Your task to perform on an android device: turn off wifi Image 0: 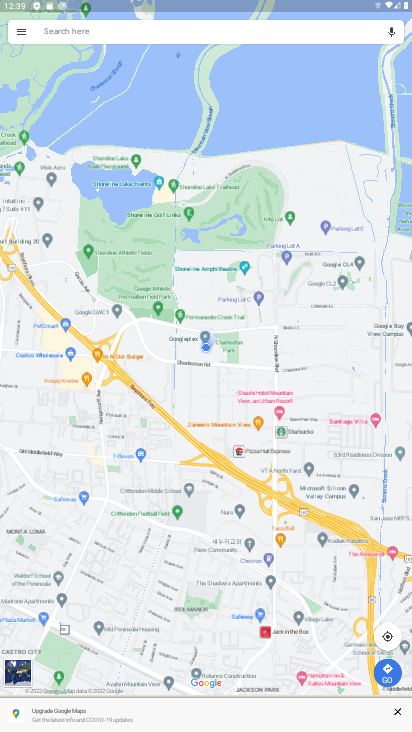
Step 0: press home button
Your task to perform on an android device: turn off wifi Image 1: 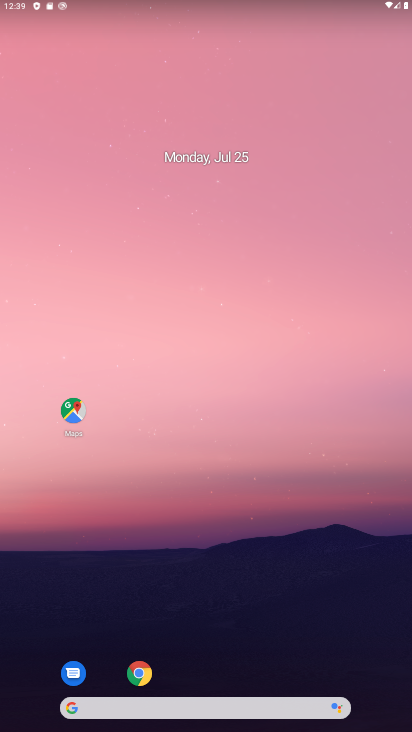
Step 1: drag from (154, 731) to (214, 55)
Your task to perform on an android device: turn off wifi Image 2: 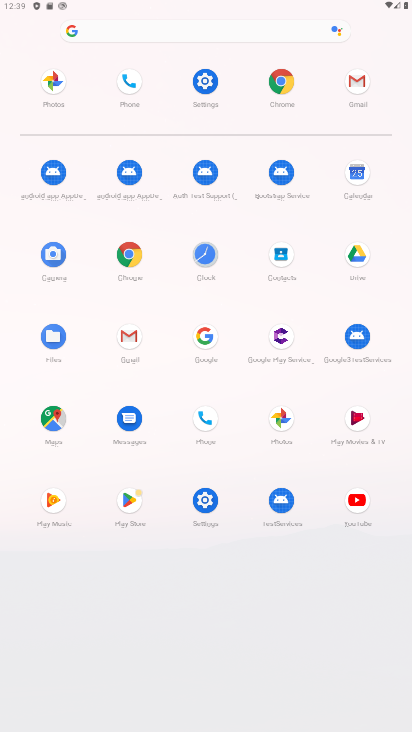
Step 2: click (198, 85)
Your task to perform on an android device: turn off wifi Image 3: 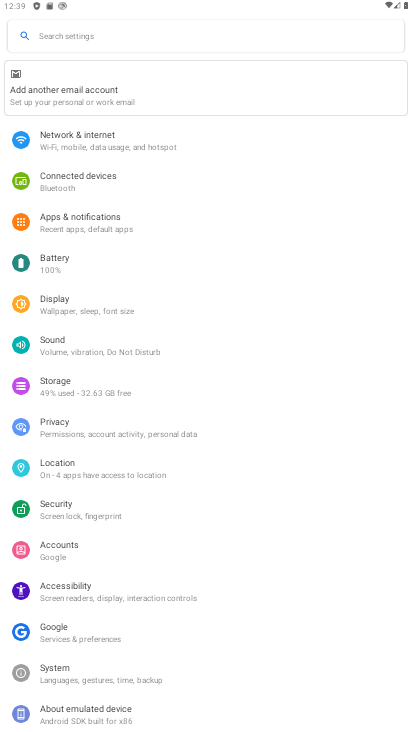
Step 3: click (176, 143)
Your task to perform on an android device: turn off wifi Image 4: 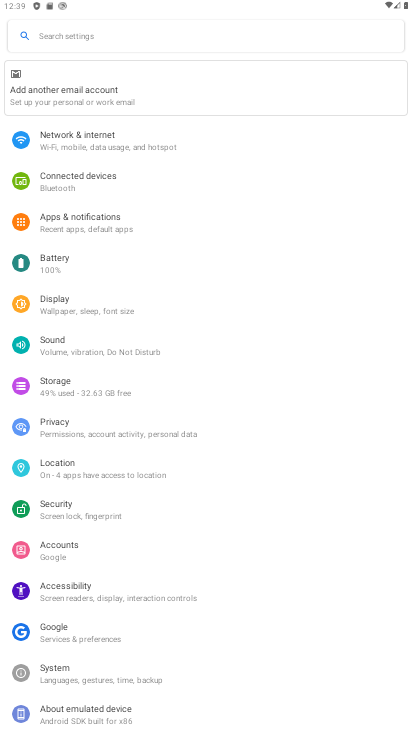
Step 4: click (176, 143)
Your task to perform on an android device: turn off wifi Image 5: 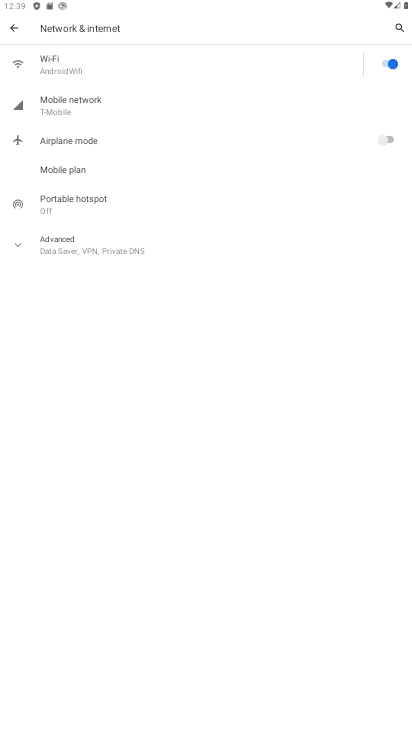
Step 5: click (390, 63)
Your task to perform on an android device: turn off wifi Image 6: 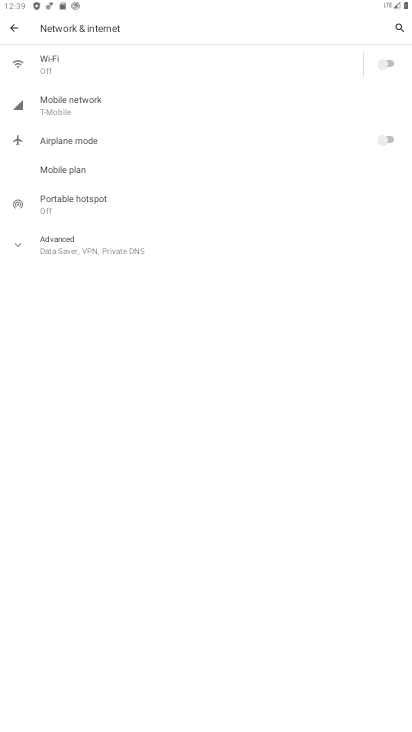
Step 6: task complete